Your task to perform on an android device: Search for pizza restaurants on Maps Image 0: 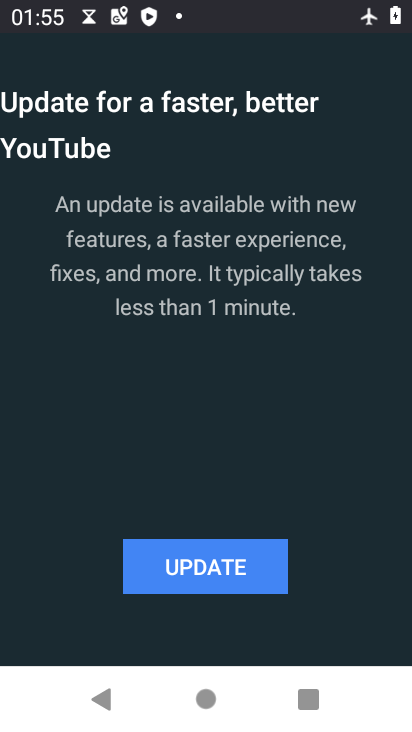
Step 0: press home button
Your task to perform on an android device: Search for pizza restaurants on Maps Image 1: 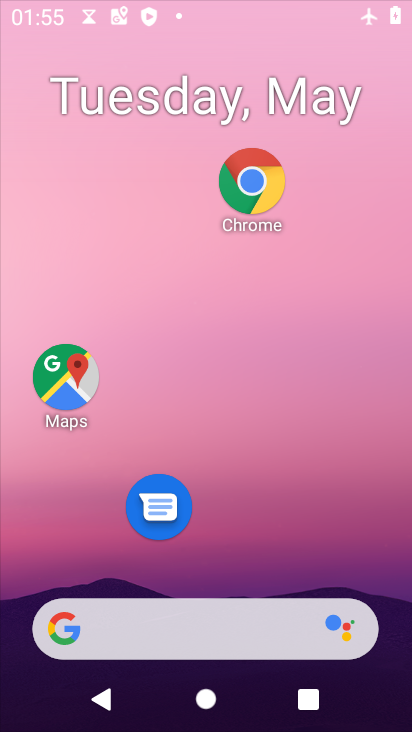
Step 1: drag from (296, 565) to (309, 281)
Your task to perform on an android device: Search for pizza restaurants on Maps Image 2: 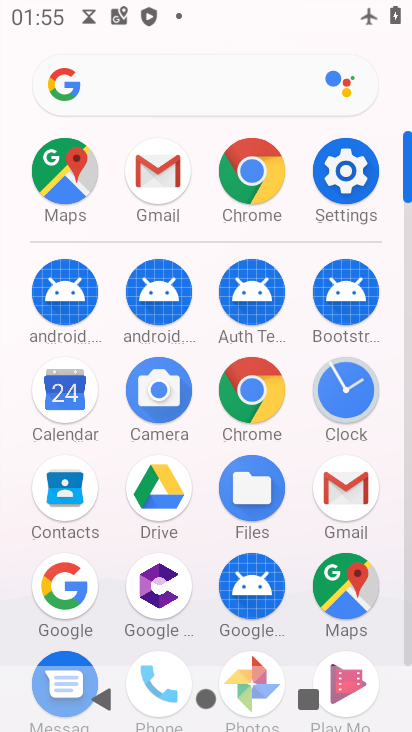
Step 2: click (41, 176)
Your task to perform on an android device: Search for pizza restaurants on Maps Image 3: 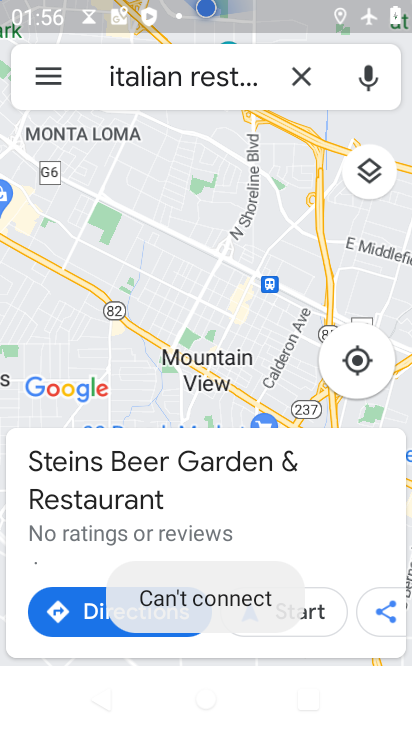
Step 3: click (302, 72)
Your task to perform on an android device: Search for pizza restaurants on Maps Image 4: 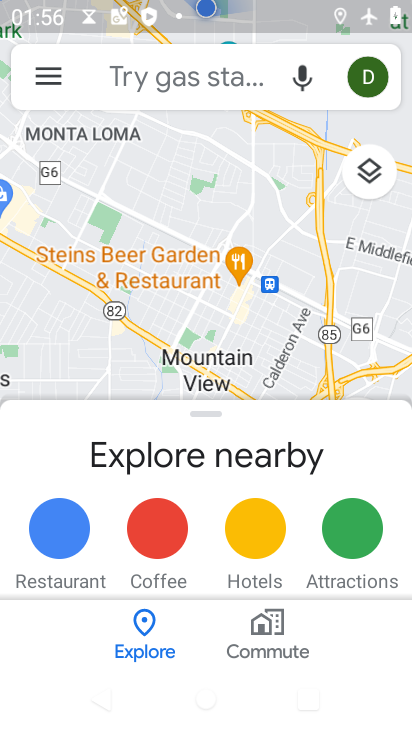
Step 4: click (208, 65)
Your task to perform on an android device: Search for pizza restaurants on Maps Image 5: 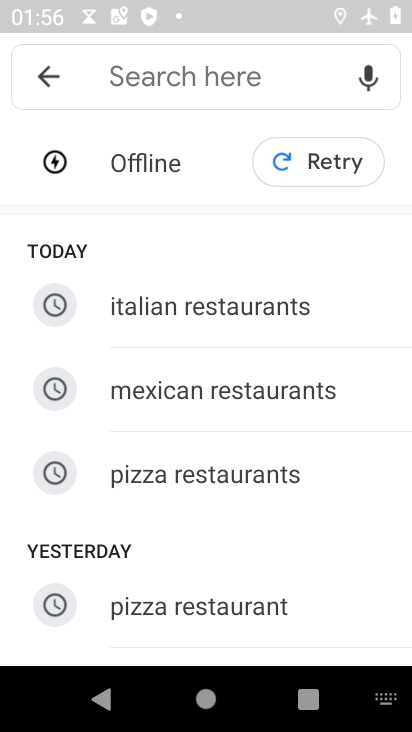
Step 5: click (205, 471)
Your task to perform on an android device: Search for pizza restaurants on Maps Image 6: 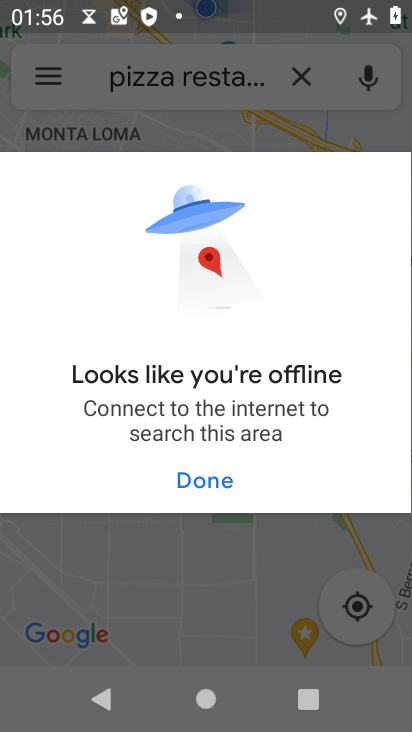
Step 6: click (209, 484)
Your task to perform on an android device: Search for pizza restaurants on Maps Image 7: 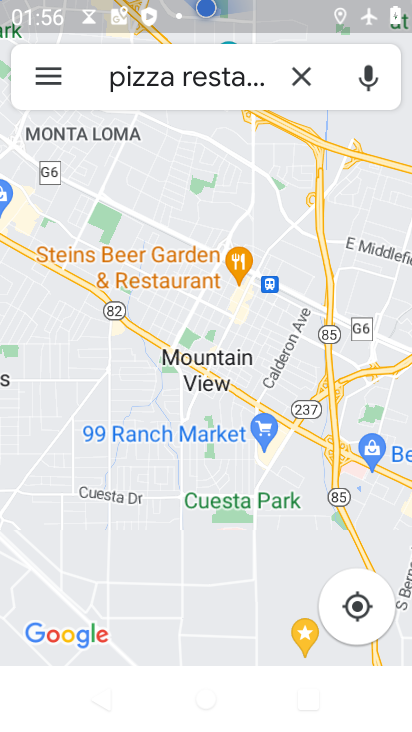
Step 7: task complete